Your task to perform on an android device: Open accessibility settings Image 0: 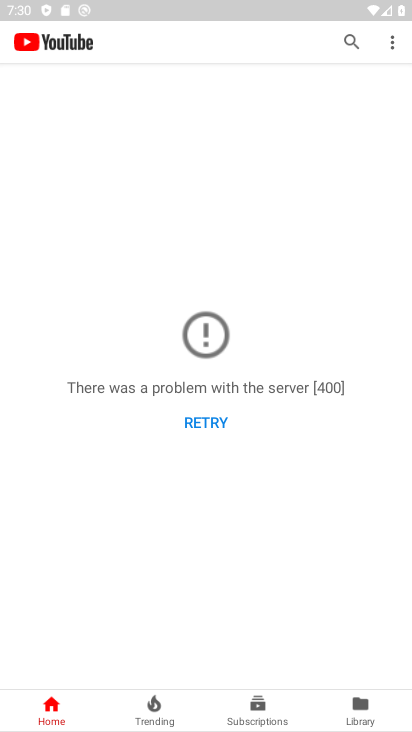
Step 0: press home button
Your task to perform on an android device: Open accessibility settings Image 1: 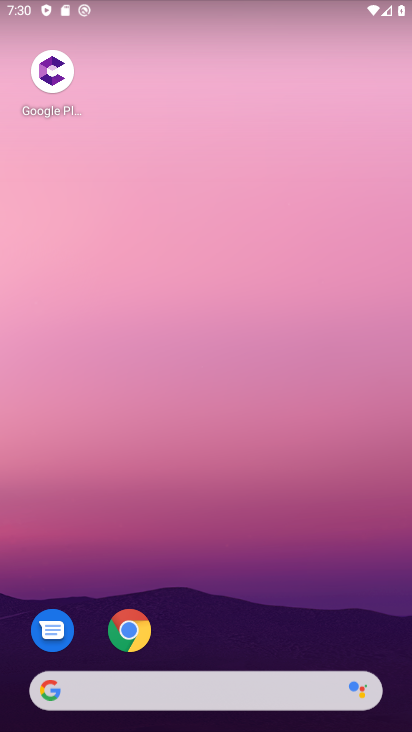
Step 1: drag from (146, 723) to (157, 91)
Your task to perform on an android device: Open accessibility settings Image 2: 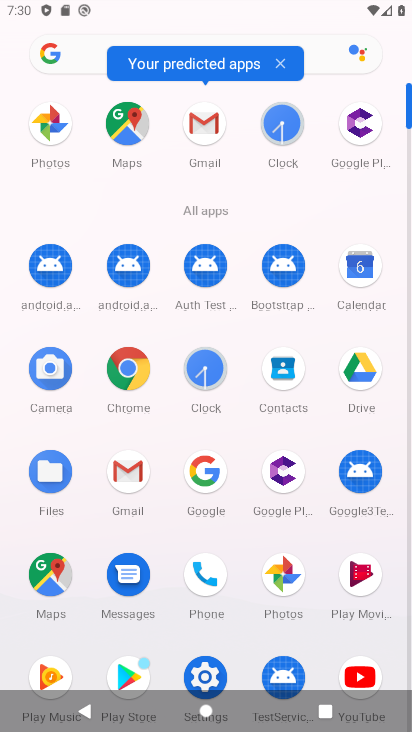
Step 2: click (205, 667)
Your task to perform on an android device: Open accessibility settings Image 3: 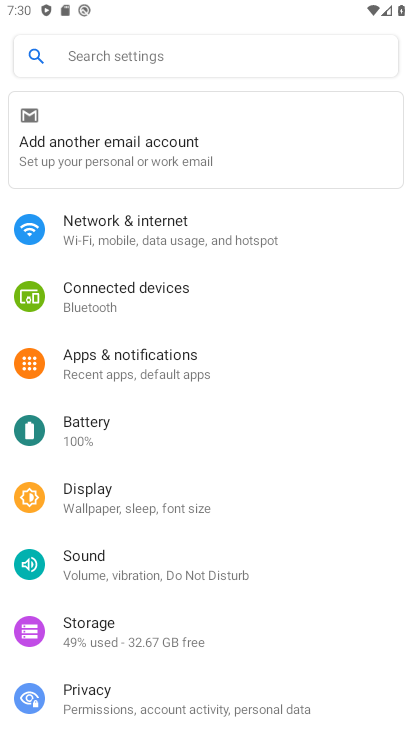
Step 3: drag from (178, 653) to (263, 342)
Your task to perform on an android device: Open accessibility settings Image 4: 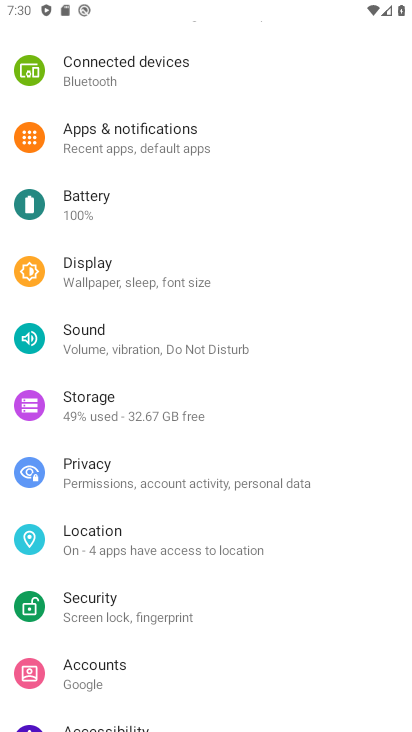
Step 4: drag from (191, 661) to (194, 427)
Your task to perform on an android device: Open accessibility settings Image 5: 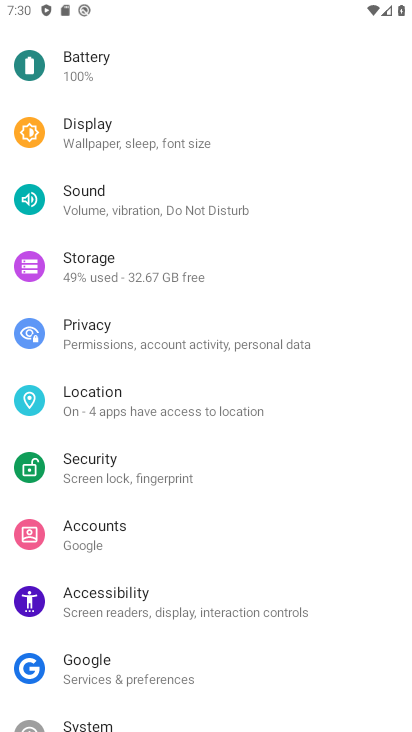
Step 5: click (148, 615)
Your task to perform on an android device: Open accessibility settings Image 6: 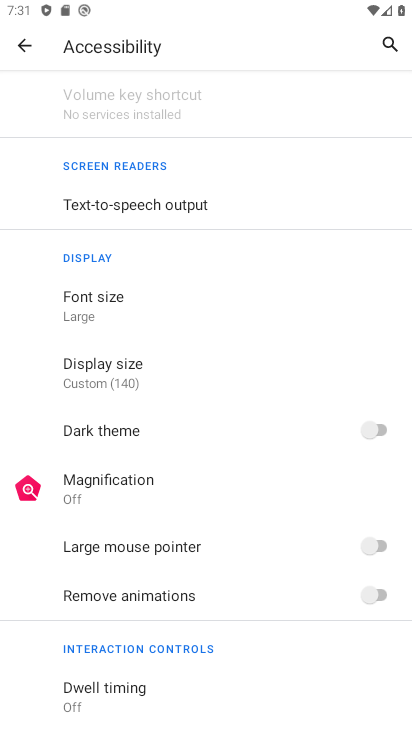
Step 6: task complete